Your task to perform on an android device: turn on location history Image 0: 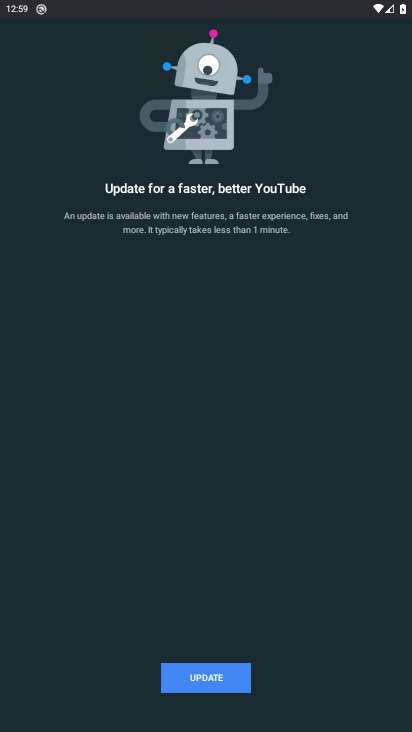
Step 0: press home button
Your task to perform on an android device: turn on location history Image 1: 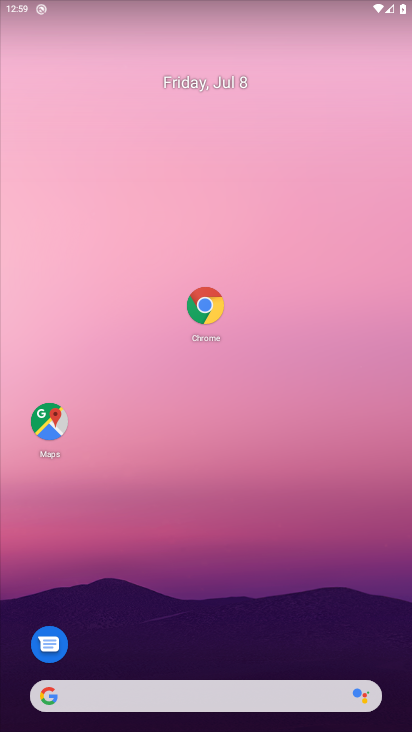
Step 1: drag from (176, 650) to (201, 251)
Your task to perform on an android device: turn on location history Image 2: 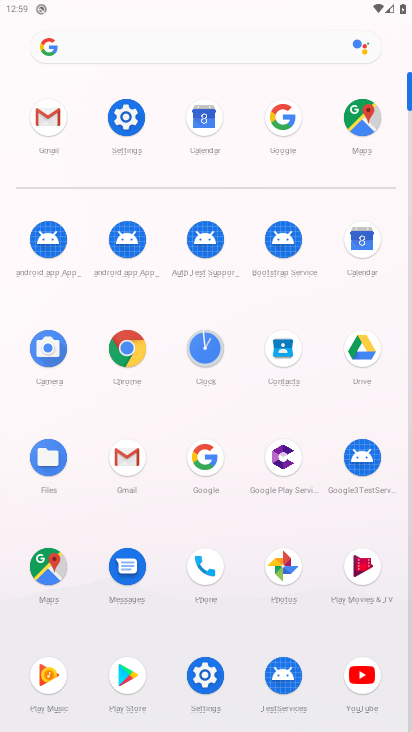
Step 2: click (209, 674)
Your task to perform on an android device: turn on location history Image 3: 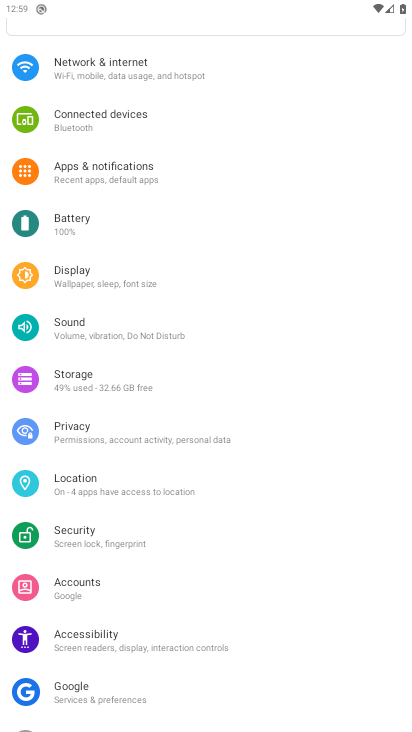
Step 3: click (107, 494)
Your task to perform on an android device: turn on location history Image 4: 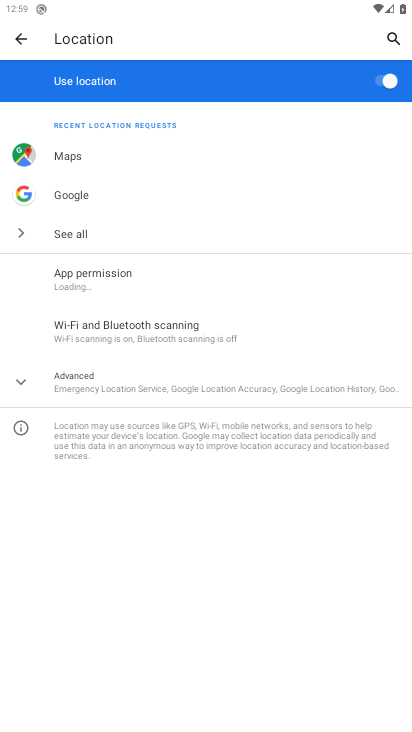
Step 4: click (84, 370)
Your task to perform on an android device: turn on location history Image 5: 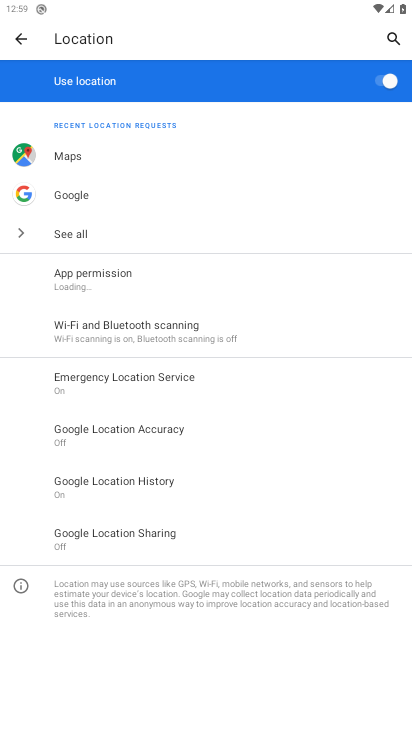
Step 5: click (164, 481)
Your task to perform on an android device: turn on location history Image 6: 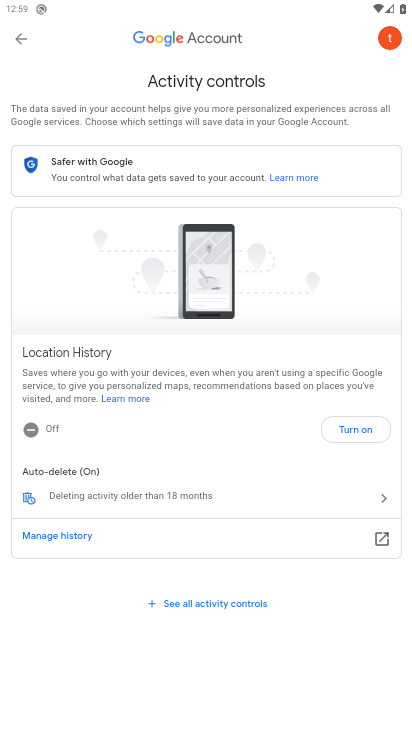
Step 6: click (342, 427)
Your task to perform on an android device: turn on location history Image 7: 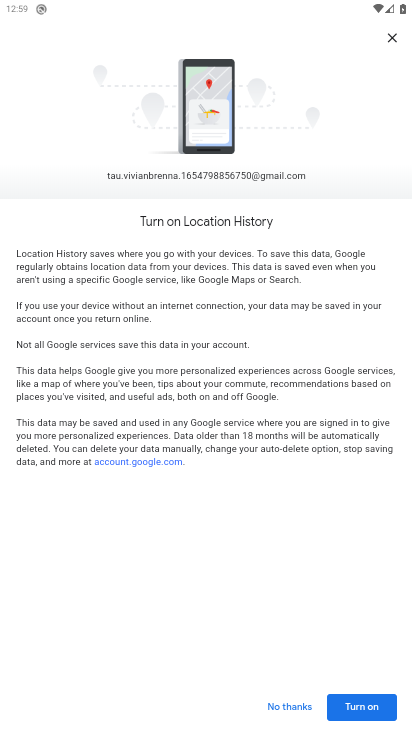
Step 7: click (348, 703)
Your task to perform on an android device: turn on location history Image 8: 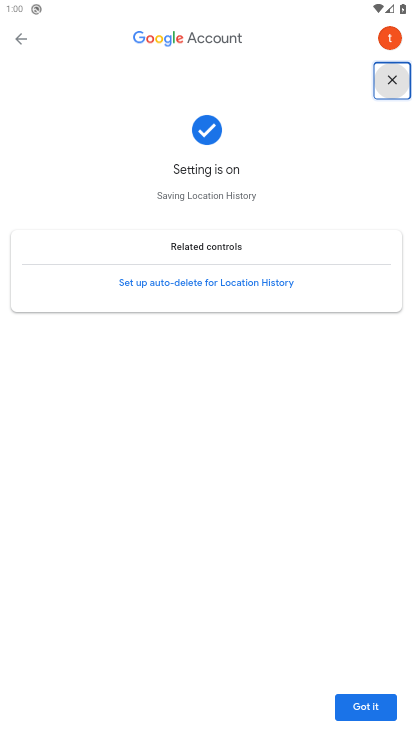
Step 8: click (387, 707)
Your task to perform on an android device: turn on location history Image 9: 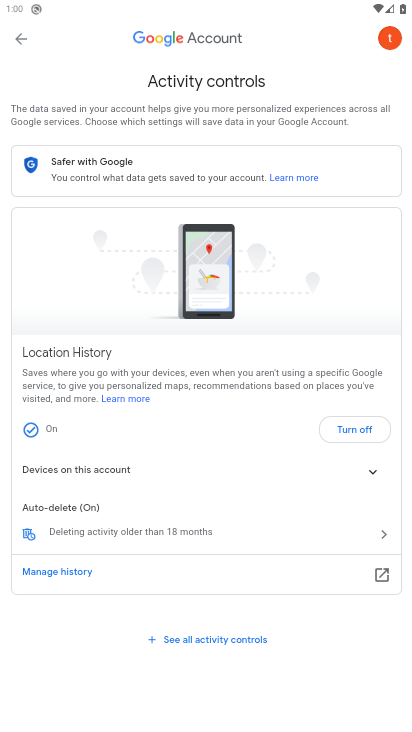
Step 9: task complete